Your task to perform on an android device: toggle translation in the chrome app Image 0: 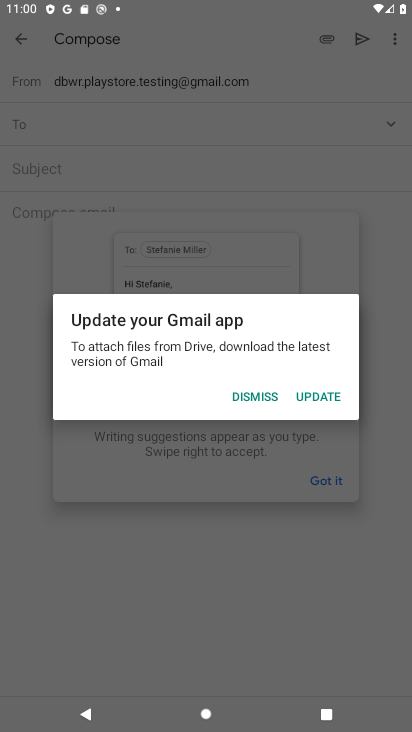
Step 0: press home button
Your task to perform on an android device: toggle translation in the chrome app Image 1: 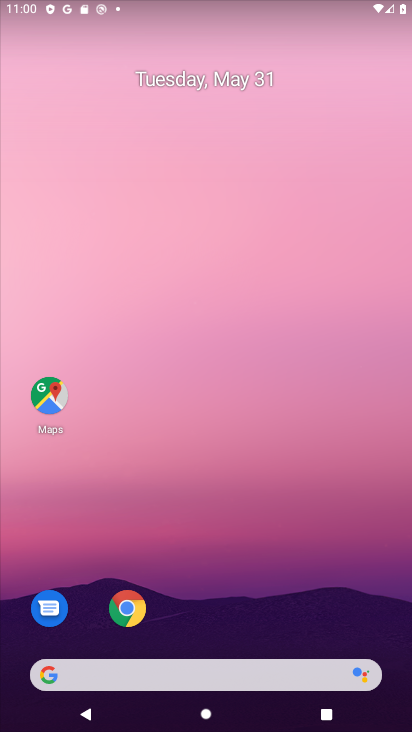
Step 1: drag from (207, 644) to (2, 454)
Your task to perform on an android device: toggle translation in the chrome app Image 2: 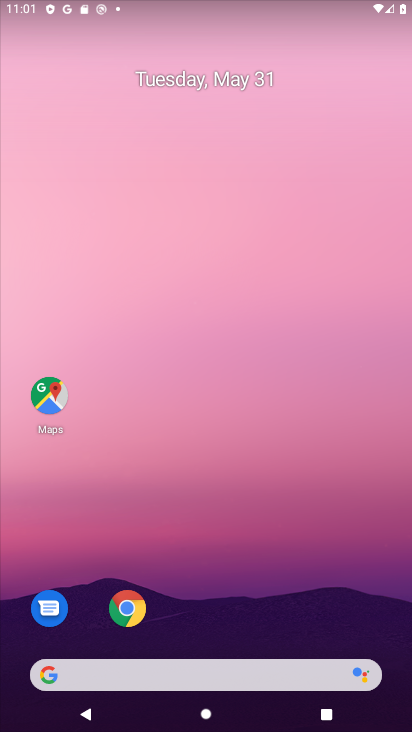
Step 2: click (122, 619)
Your task to perform on an android device: toggle translation in the chrome app Image 3: 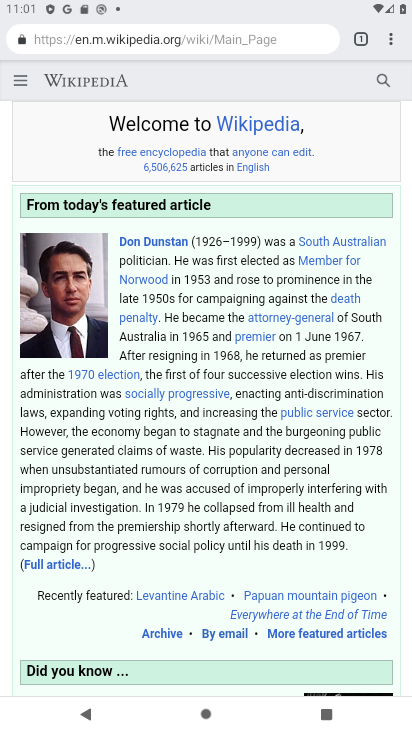
Step 3: drag from (399, 36) to (266, 475)
Your task to perform on an android device: toggle translation in the chrome app Image 4: 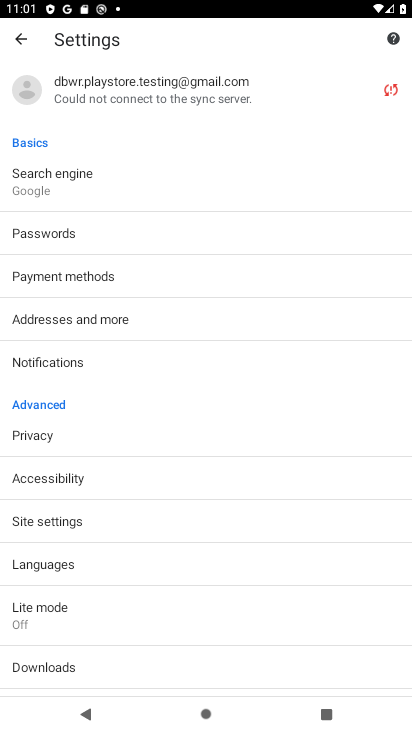
Step 4: click (55, 619)
Your task to perform on an android device: toggle translation in the chrome app Image 5: 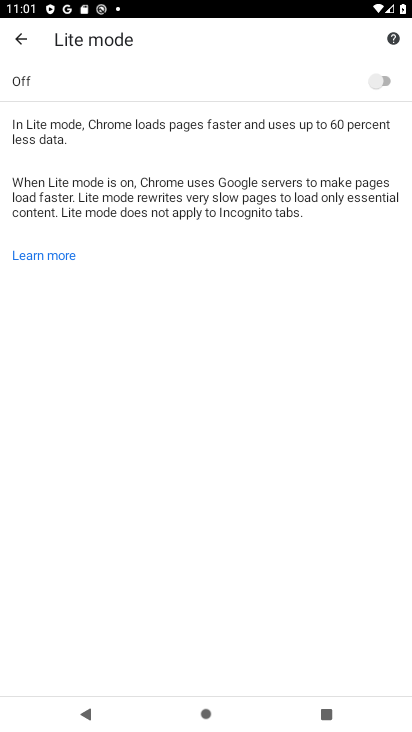
Step 5: click (7, 32)
Your task to perform on an android device: toggle translation in the chrome app Image 6: 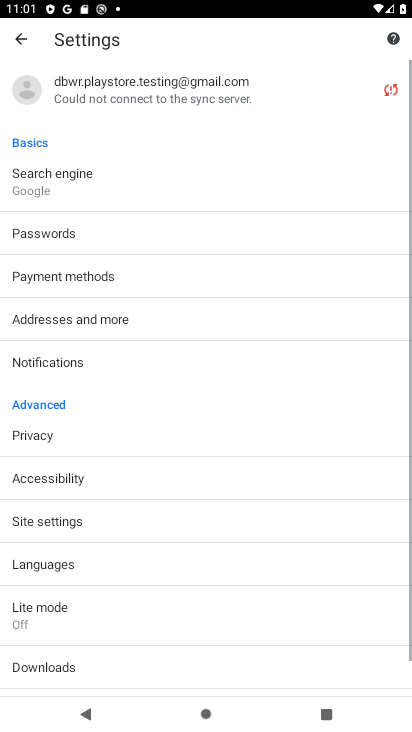
Step 6: click (100, 568)
Your task to perform on an android device: toggle translation in the chrome app Image 7: 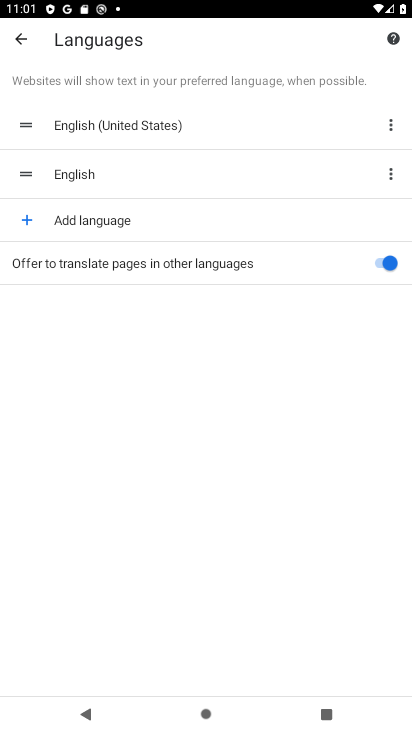
Step 7: click (209, 264)
Your task to perform on an android device: toggle translation in the chrome app Image 8: 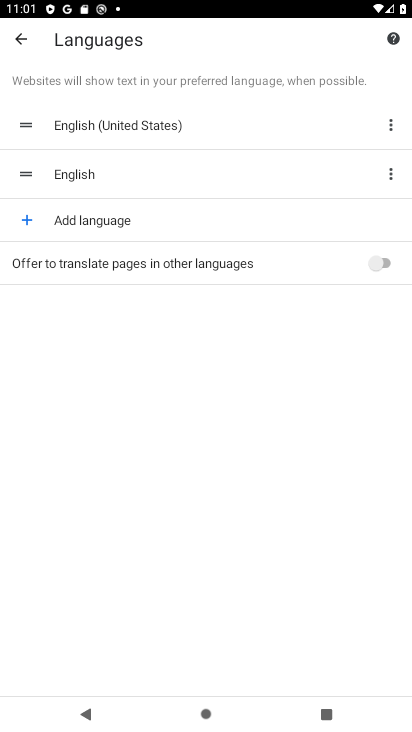
Step 8: task complete